Your task to perform on an android device: change the upload size in google photos Image 0: 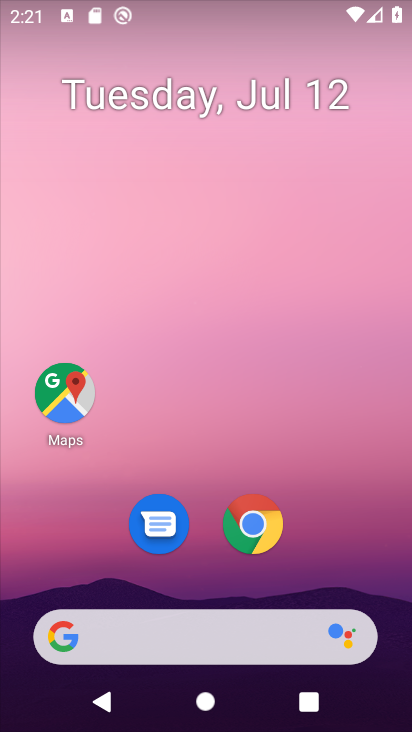
Step 0: drag from (319, 533) to (351, 46)
Your task to perform on an android device: change the upload size in google photos Image 1: 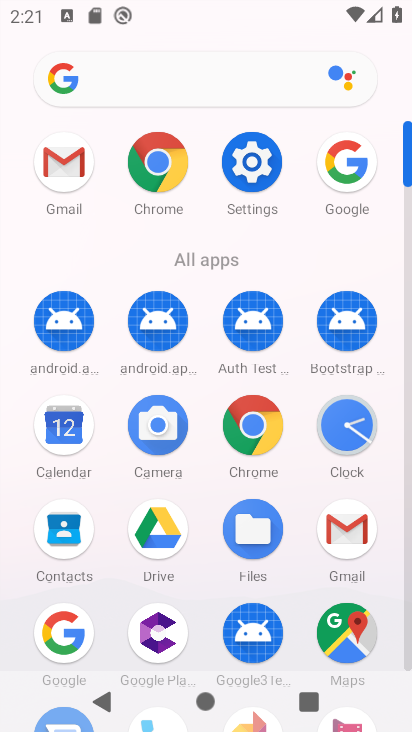
Step 1: drag from (217, 463) to (224, 150)
Your task to perform on an android device: change the upload size in google photos Image 2: 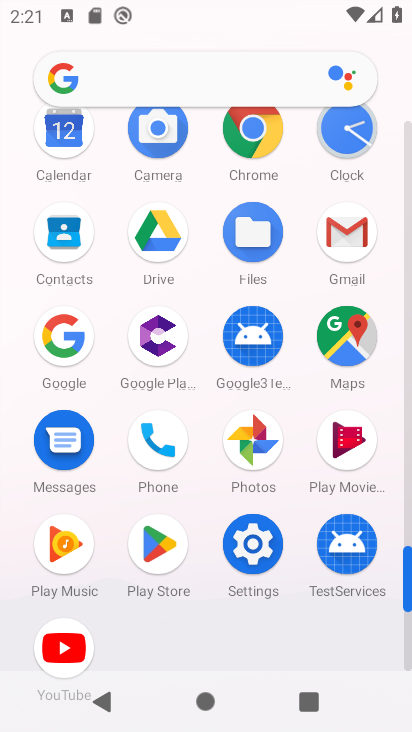
Step 2: click (258, 422)
Your task to perform on an android device: change the upload size in google photos Image 3: 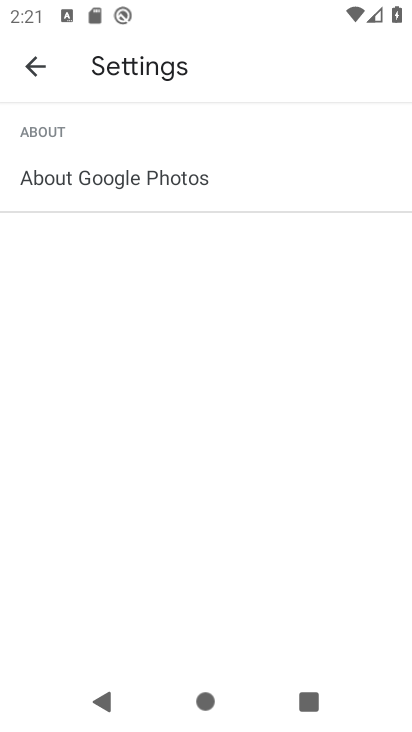
Step 3: click (34, 60)
Your task to perform on an android device: change the upload size in google photos Image 4: 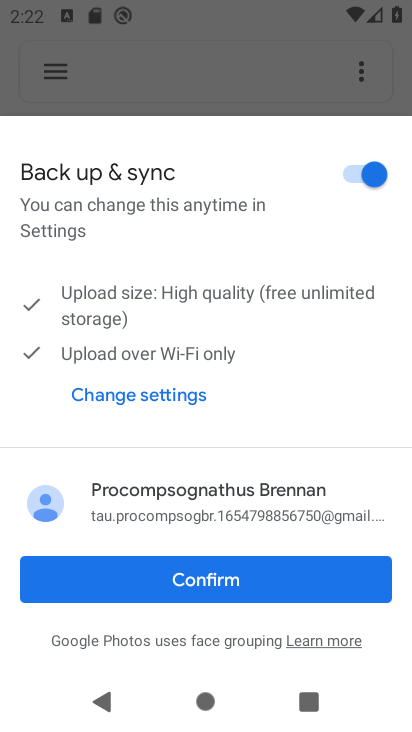
Step 4: click (179, 579)
Your task to perform on an android device: change the upload size in google photos Image 5: 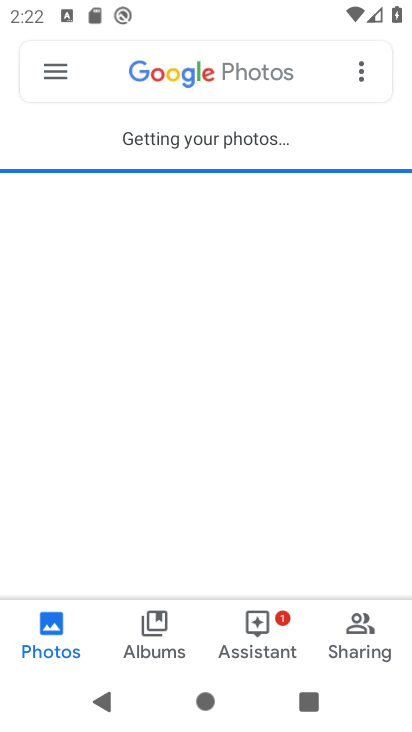
Step 5: click (53, 71)
Your task to perform on an android device: change the upload size in google photos Image 6: 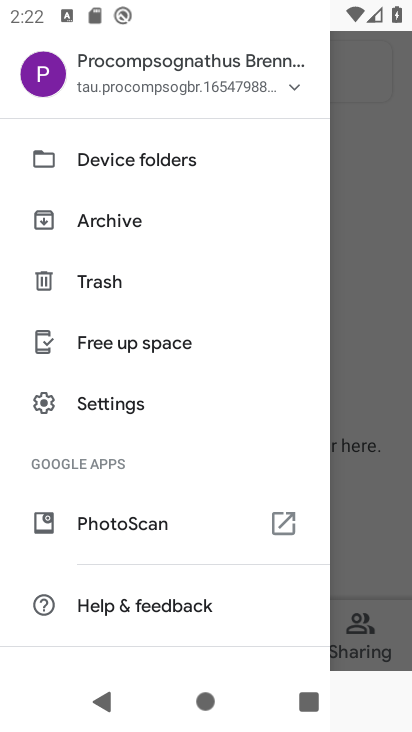
Step 6: click (129, 403)
Your task to perform on an android device: change the upload size in google photos Image 7: 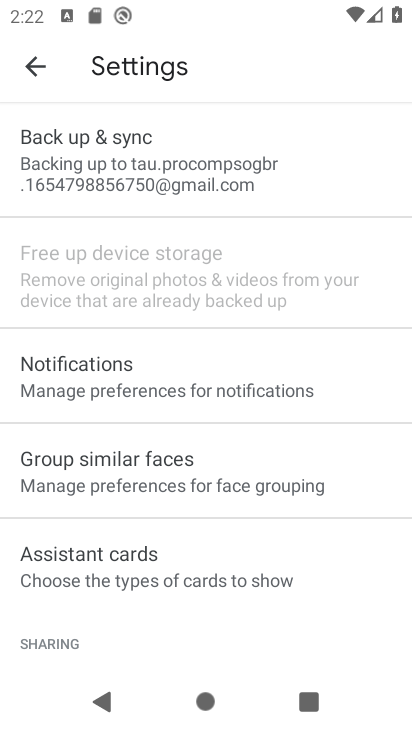
Step 7: click (167, 160)
Your task to perform on an android device: change the upload size in google photos Image 8: 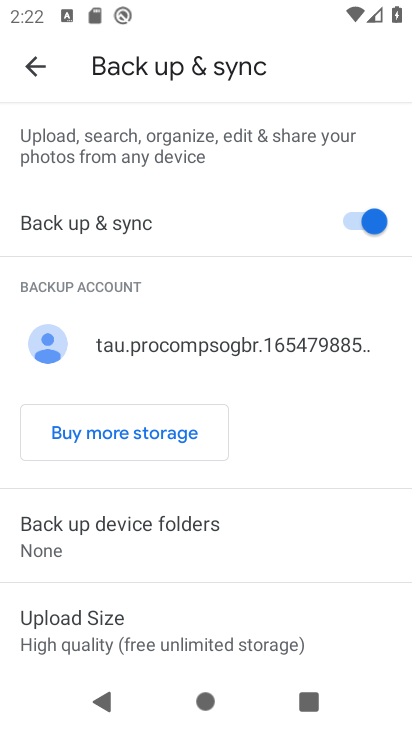
Step 8: drag from (222, 555) to (257, 170)
Your task to perform on an android device: change the upload size in google photos Image 9: 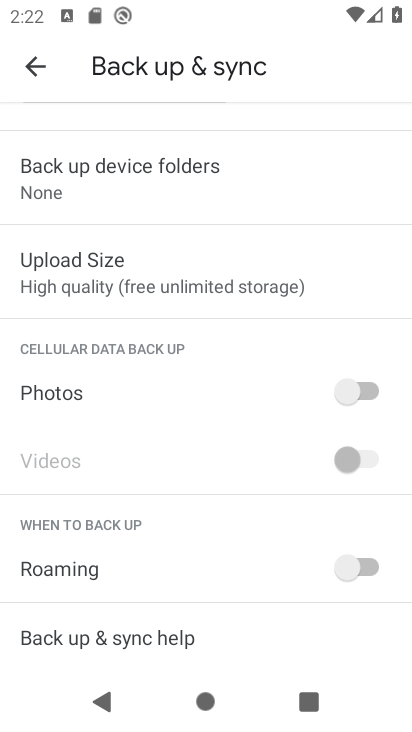
Step 9: click (226, 271)
Your task to perform on an android device: change the upload size in google photos Image 10: 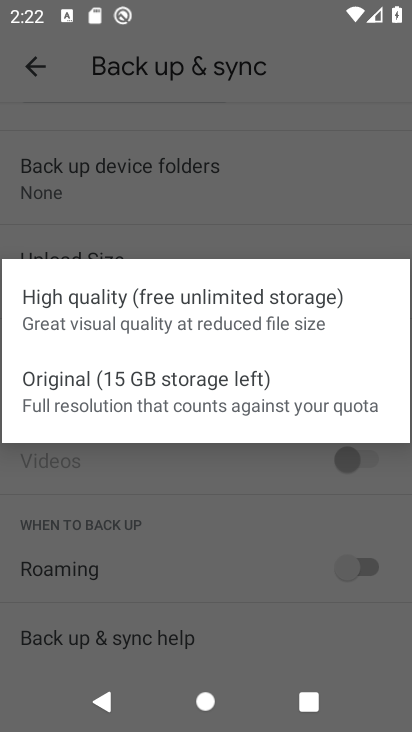
Step 10: click (197, 393)
Your task to perform on an android device: change the upload size in google photos Image 11: 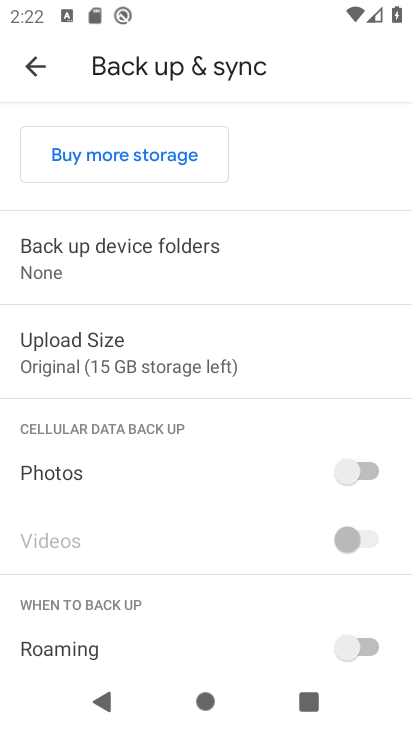
Step 11: task complete